Your task to perform on an android device: Open Wikipedia Image 0: 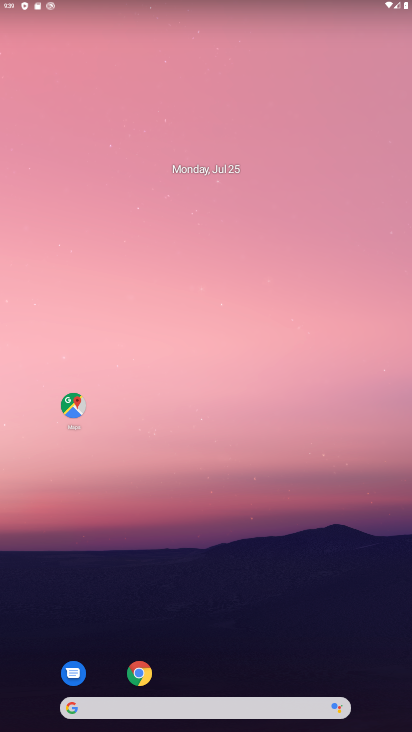
Step 0: drag from (230, 5) to (229, 550)
Your task to perform on an android device: Open Wikipedia Image 1: 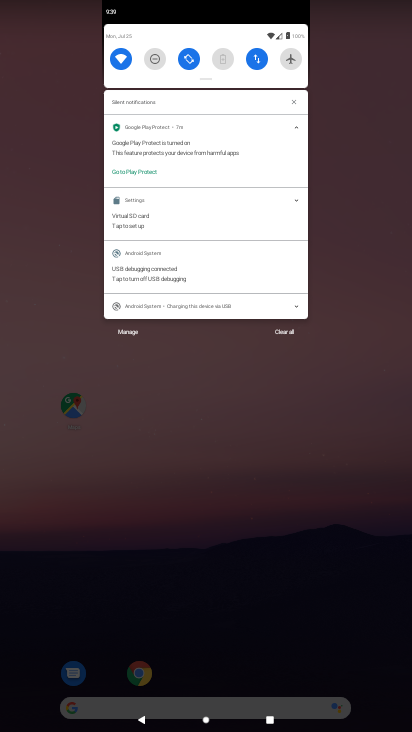
Step 1: click (331, 454)
Your task to perform on an android device: Open Wikipedia Image 2: 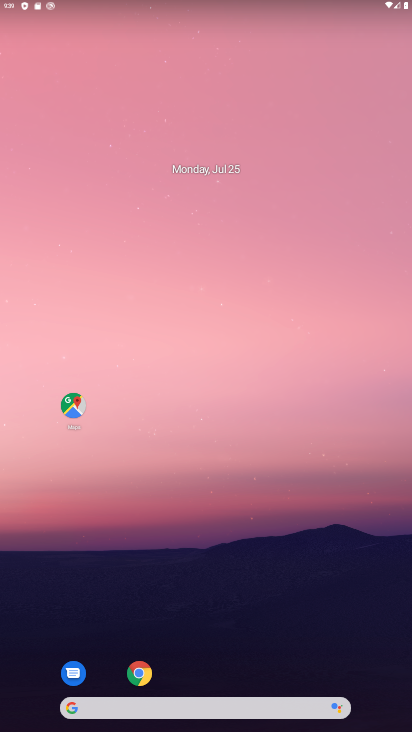
Step 2: click (147, 671)
Your task to perform on an android device: Open Wikipedia Image 3: 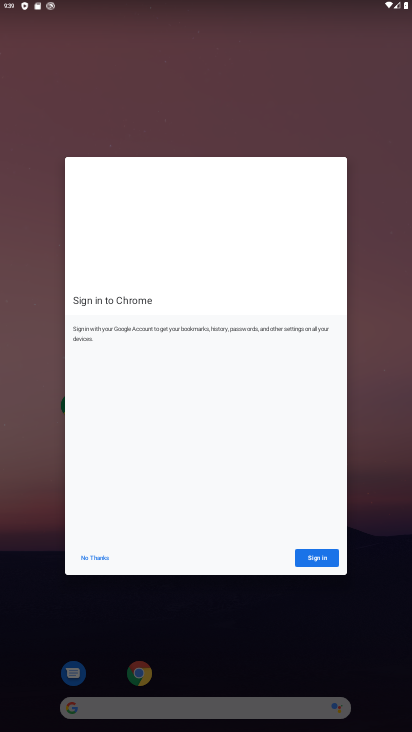
Step 3: click (333, 557)
Your task to perform on an android device: Open Wikipedia Image 4: 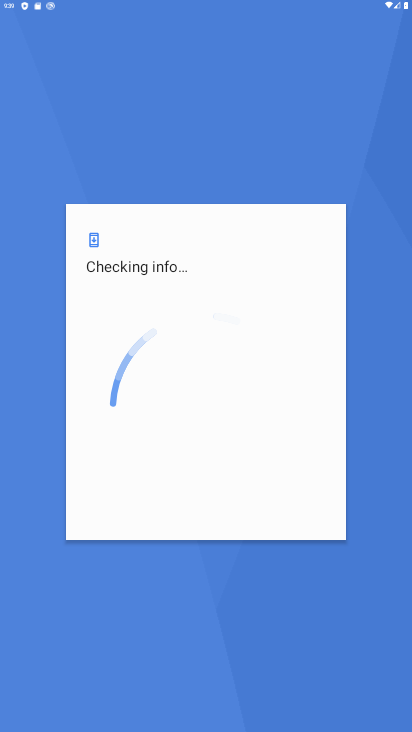
Step 4: task complete